Your task to perform on an android device: empty trash in the gmail app Image 0: 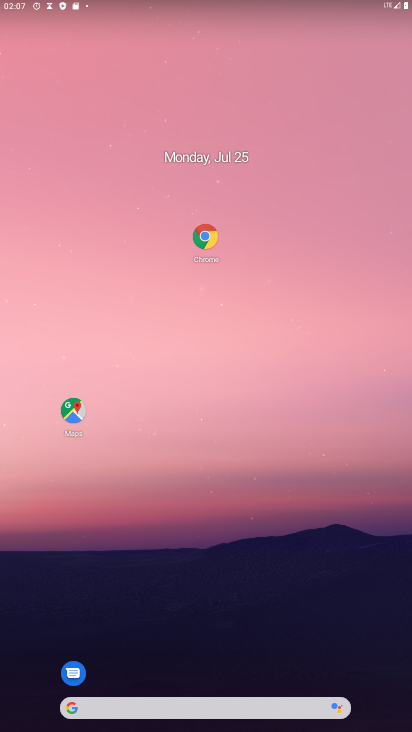
Step 0: drag from (311, 627) to (264, 70)
Your task to perform on an android device: empty trash in the gmail app Image 1: 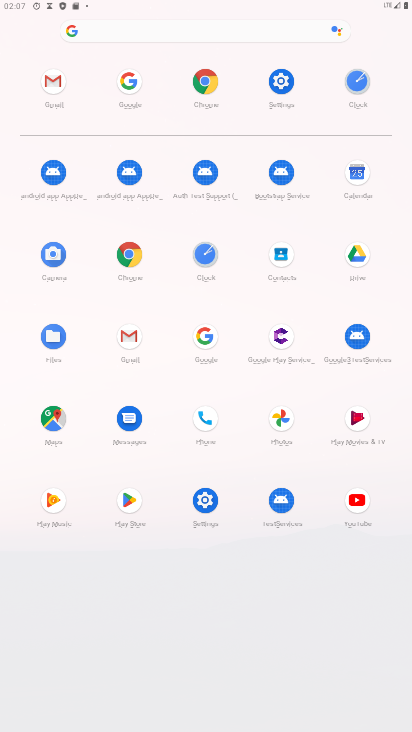
Step 1: click (124, 335)
Your task to perform on an android device: empty trash in the gmail app Image 2: 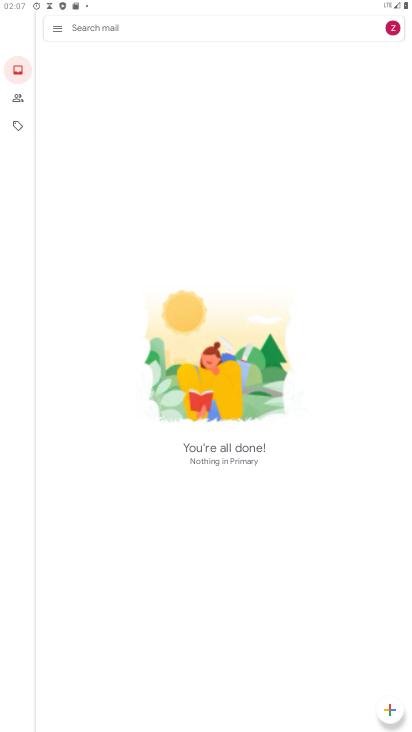
Step 2: click (62, 26)
Your task to perform on an android device: empty trash in the gmail app Image 3: 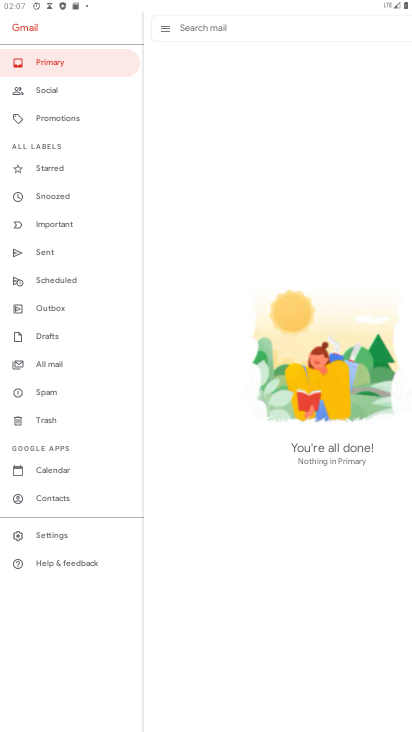
Step 3: click (62, 426)
Your task to perform on an android device: empty trash in the gmail app Image 4: 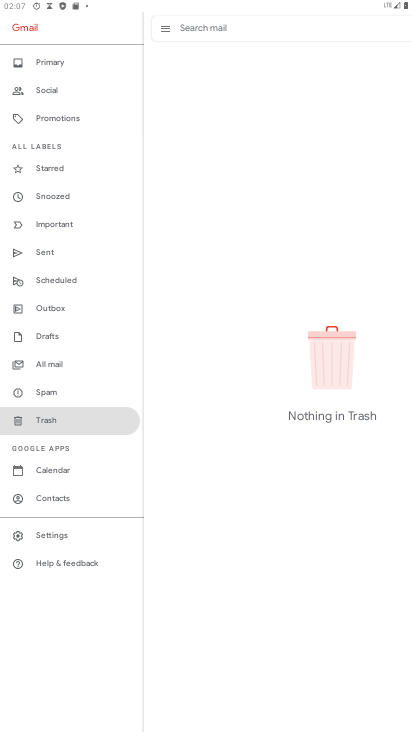
Step 4: task complete